Your task to perform on an android device: turn off location Image 0: 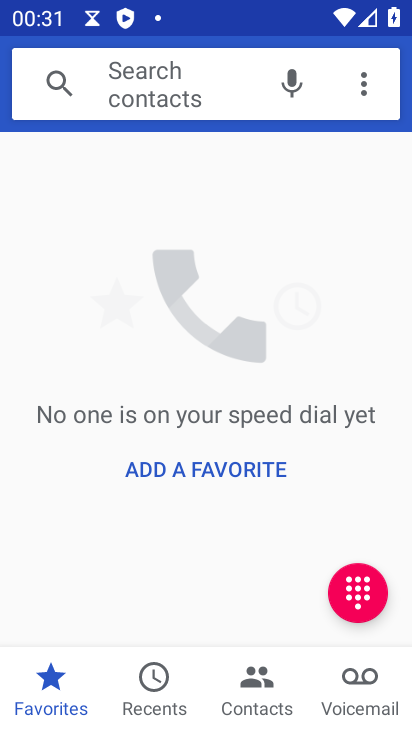
Step 0: press home button
Your task to perform on an android device: turn off location Image 1: 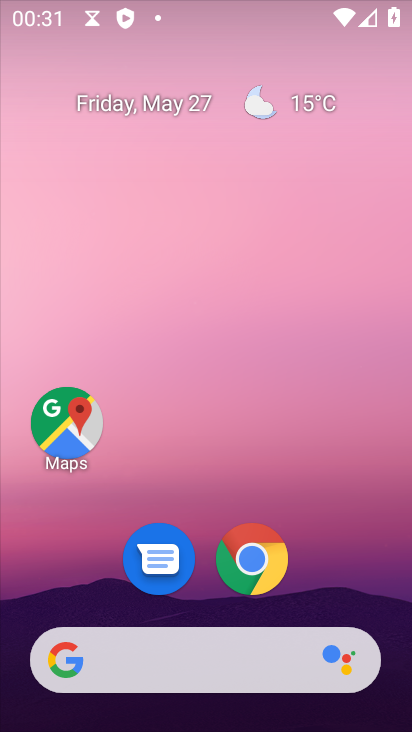
Step 1: drag from (362, 465) to (223, 42)
Your task to perform on an android device: turn off location Image 2: 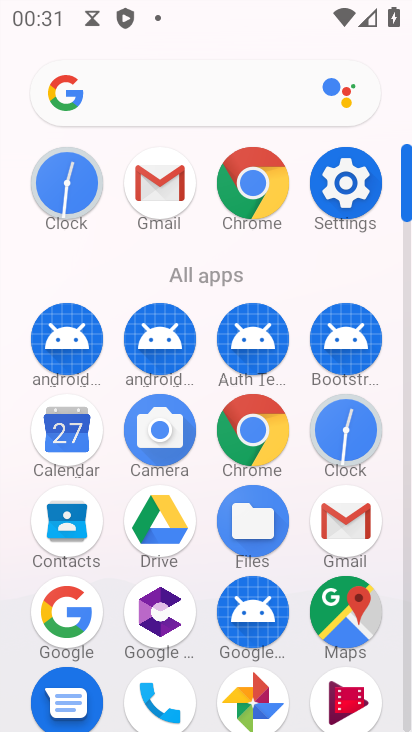
Step 2: click (343, 198)
Your task to perform on an android device: turn off location Image 3: 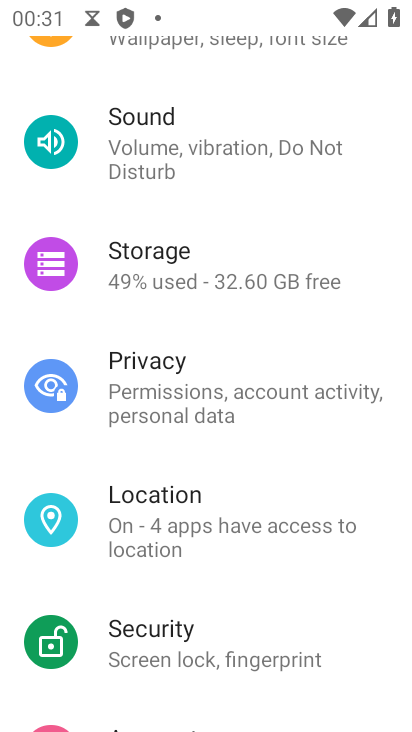
Step 3: click (156, 480)
Your task to perform on an android device: turn off location Image 4: 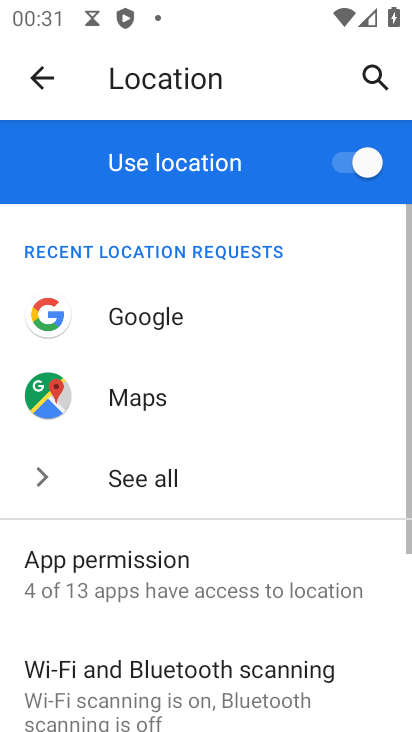
Step 4: click (352, 161)
Your task to perform on an android device: turn off location Image 5: 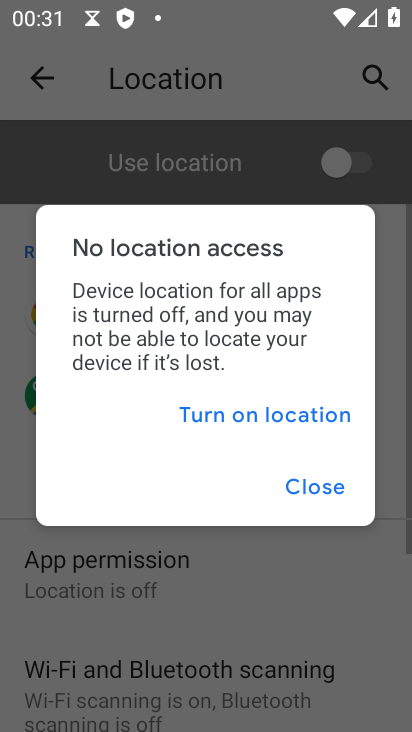
Step 5: task complete